Your task to perform on an android device: delete browsing data in the chrome app Image 0: 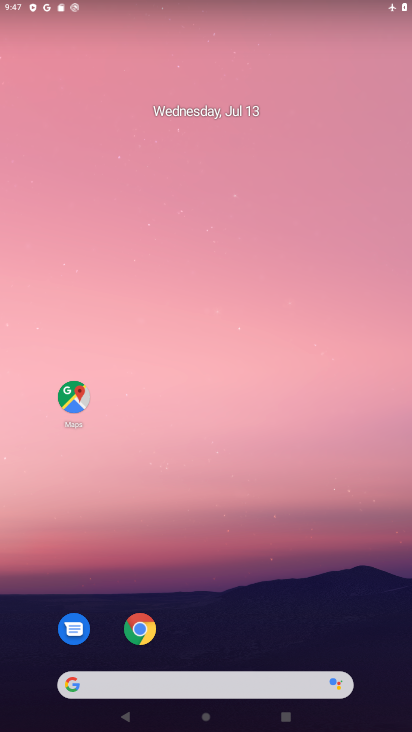
Step 0: click (224, 647)
Your task to perform on an android device: delete browsing data in the chrome app Image 1: 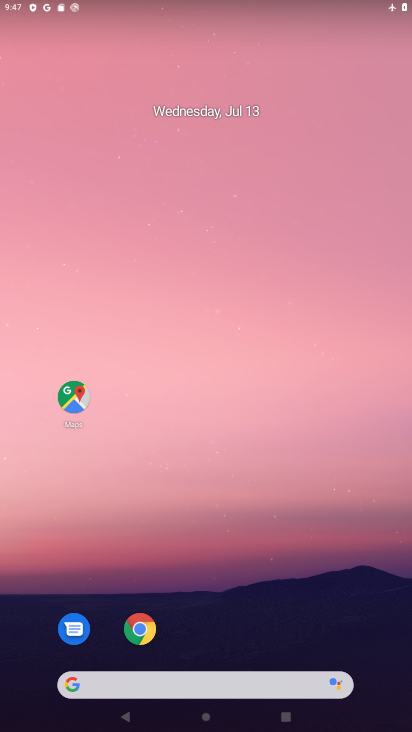
Step 1: drag from (224, 647) to (228, 209)
Your task to perform on an android device: delete browsing data in the chrome app Image 2: 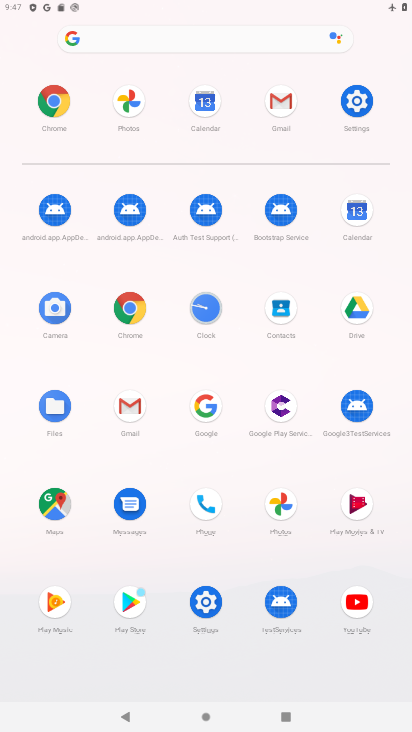
Step 2: click (62, 114)
Your task to perform on an android device: delete browsing data in the chrome app Image 3: 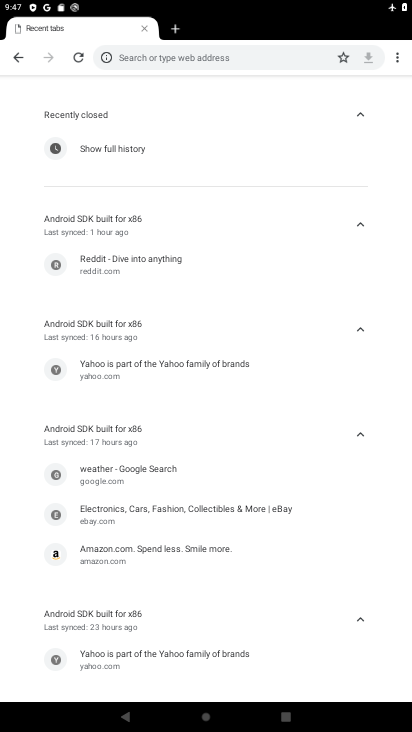
Step 3: click (402, 64)
Your task to perform on an android device: delete browsing data in the chrome app Image 4: 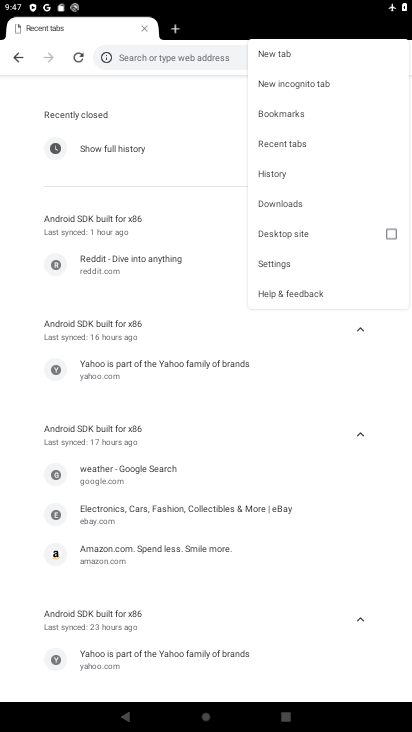
Step 4: click (291, 268)
Your task to perform on an android device: delete browsing data in the chrome app Image 5: 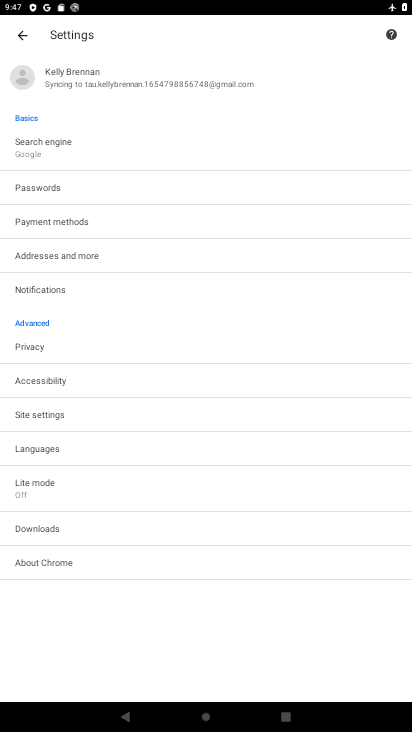
Step 5: task complete